Your task to perform on an android device: change timer sound Image 0: 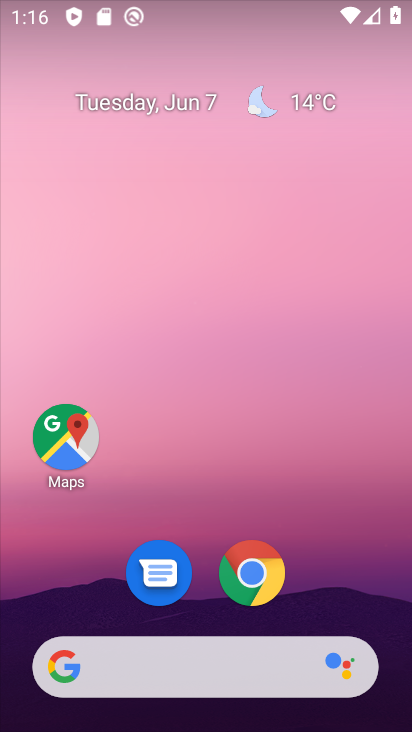
Step 0: drag from (311, 620) to (327, 122)
Your task to perform on an android device: change timer sound Image 1: 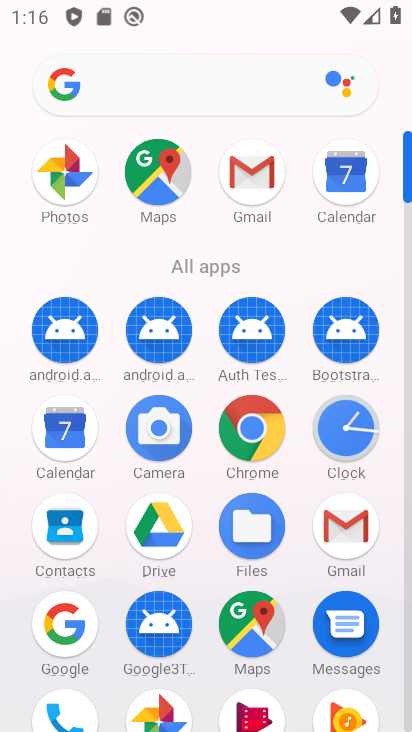
Step 1: click (342, 418)
Your task to perform on an android device: change timer sound Image 2: 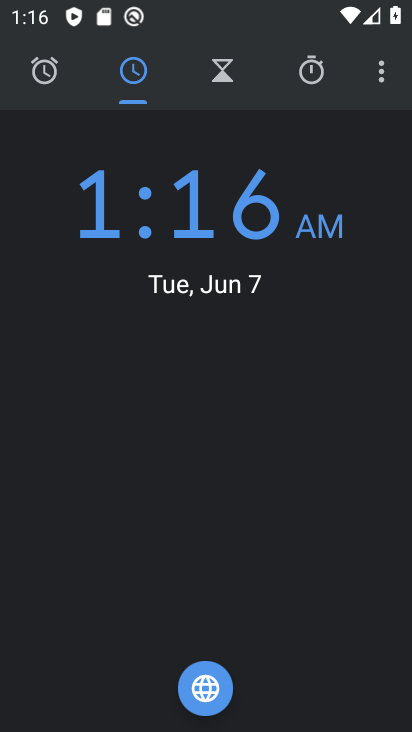
Step 2: click (383, 69)
Your task to perform on an android device: change timer sound Image 3: 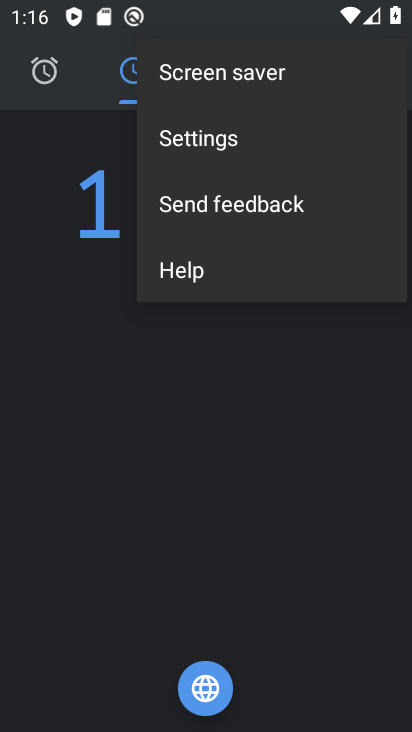
Step 3: click (246, 140)
Your task to perform on an android device: change timer sound Image 4: 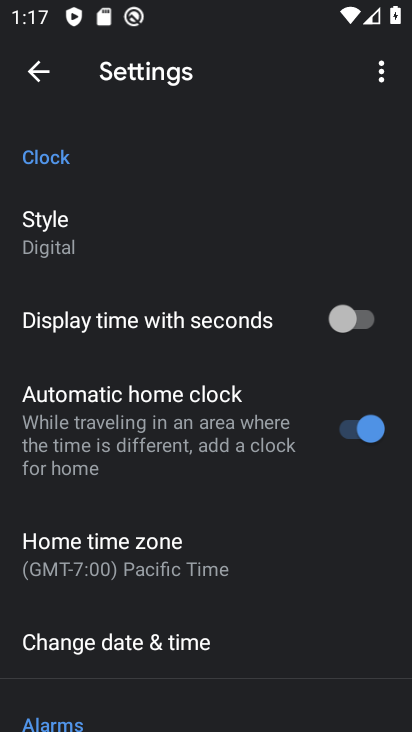
Step 4: drag from (234, 662) to (232, 110)
Your task to perform on an android device: change timer sound Image 5: 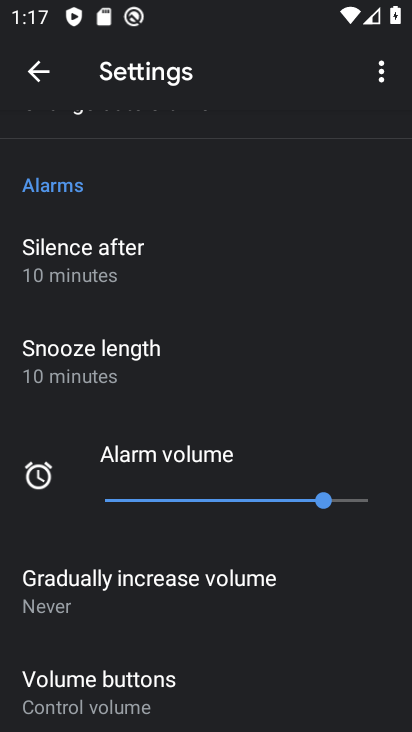
Step 5: drag from (213, 695) to (232, 112)
Your task to perform on an android device: change timer sound Image 6: 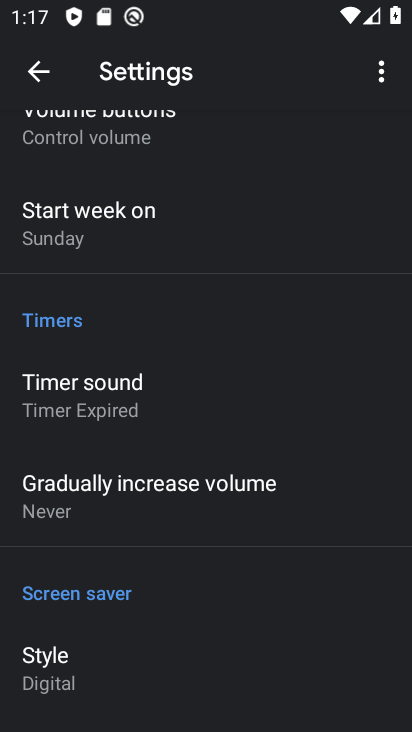
Step 6: click (160, 399)
Your task to perform on an android device: change timer sound Image 7: 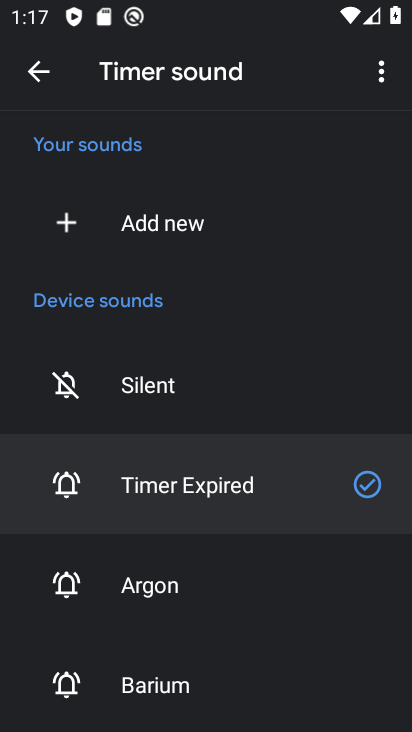
Step 7: click (202, 683)
Your task to perform on an android device: change timer sound Image 8: 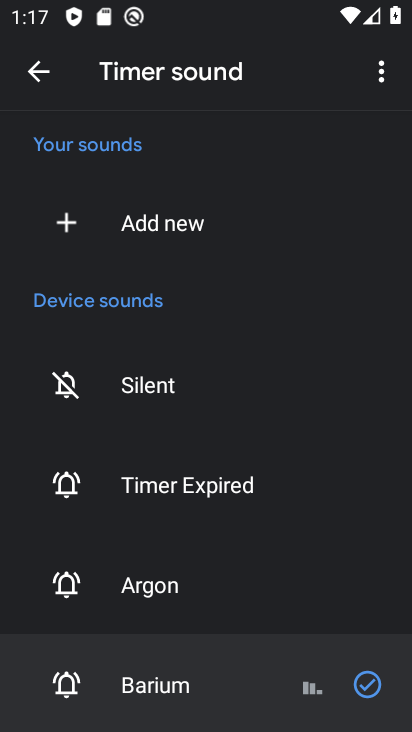
Step 8: task complete